Your task to perform on an android device: visit the assistant section in the google photos Image 0: 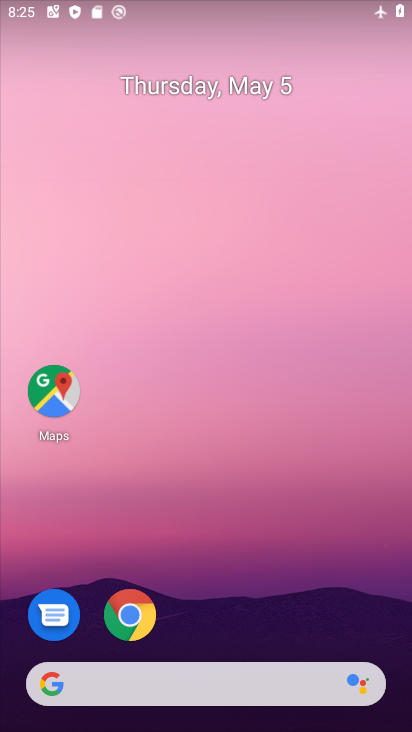
Step 0: drag from (252, 568) to (311, 156)
Your task to perform on an android device: visit the assistant section in the google photos Image 1: 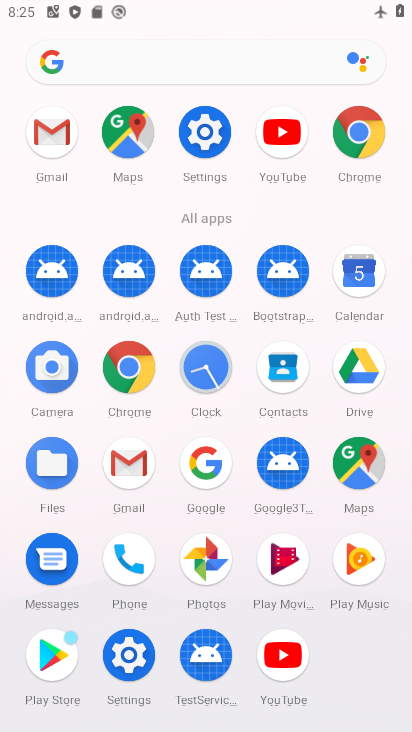
Step 1: click (211, 576)
Your task to perform on an android device: visit the assistant section in the google photos Image 2: 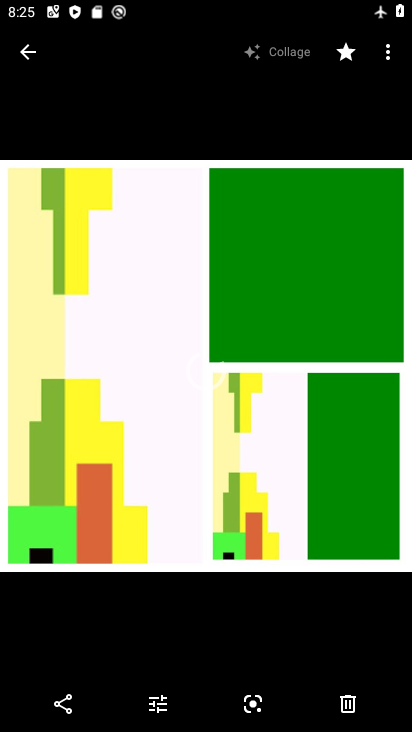
Step 2: click (25, 54)
Your task to perform on an android device: visit the assistant section in the google photos Image 3: 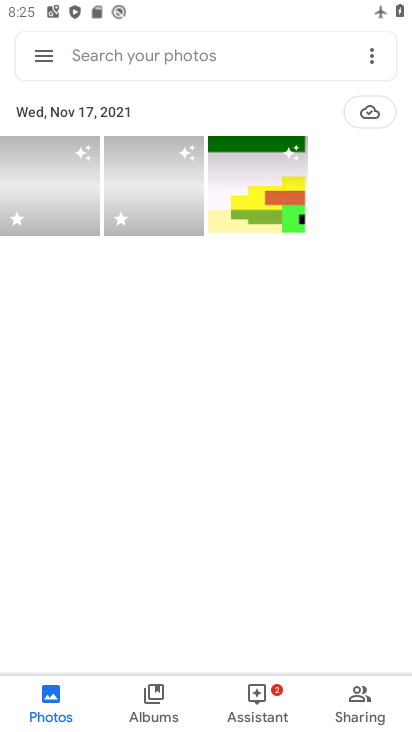
Step 3: click (267, 707)
Your task to perform on an android device: visit the assistant section in the google photos Image 4: 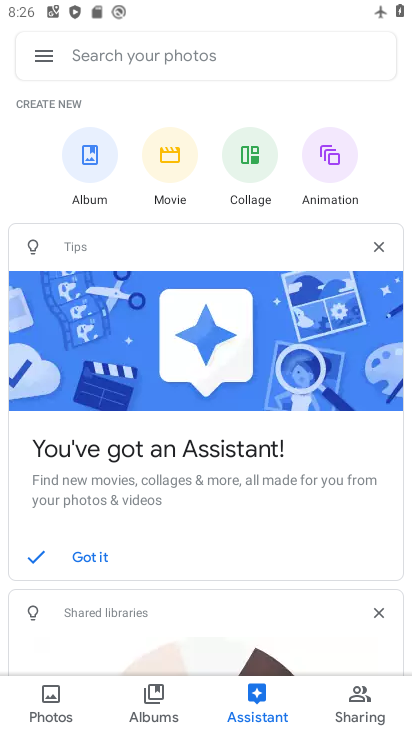
Step 4: task complete